Your task to perform on an android device: turn on translation in the chrome app Image 0: 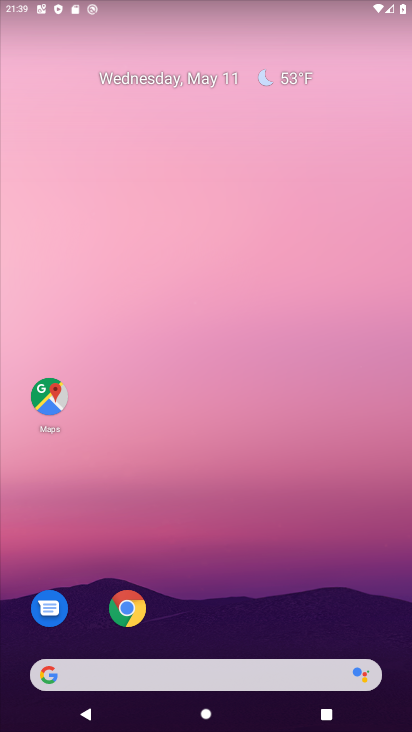
Step 0: click (135, 616)
Your task to perform on an android device: turn on translation in the chrome app Image 1: 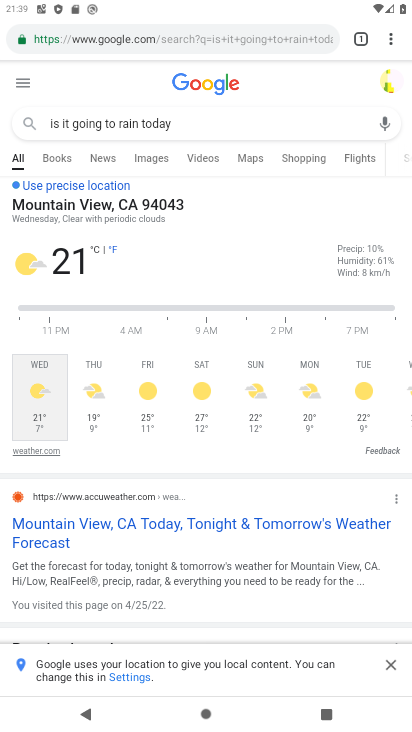
Step 1: drag from (388, 39) to (259, 437)
Your task to perform on an android device: turn on translation in the chrome app Image 2: 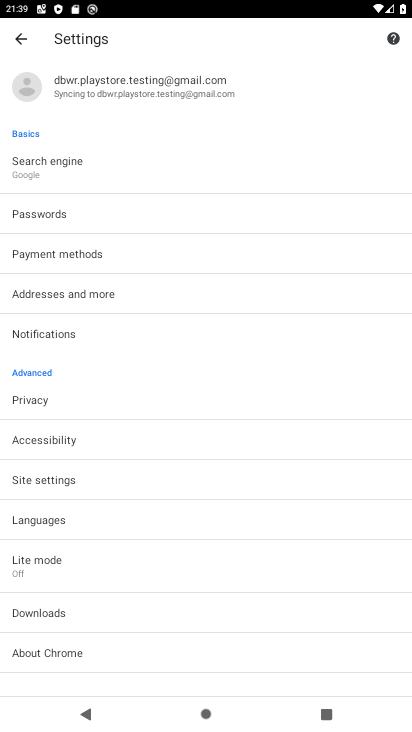
Step 2: click (49, 516)
Your task to perform on an android device: turn on translation in the chrome app Image 3: 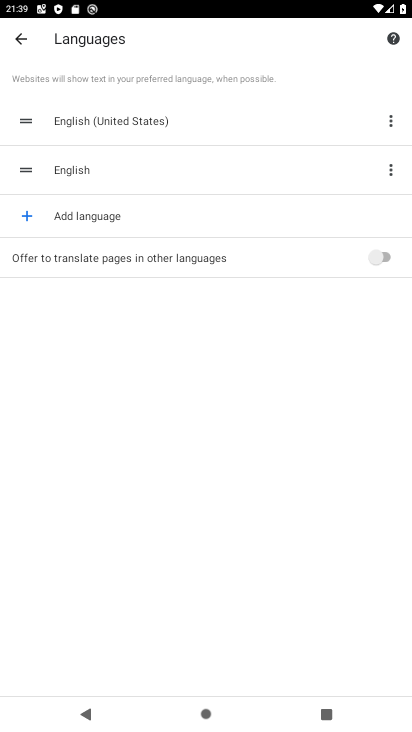
Step 3: click (375, 257)
Your task to perform on an android device: turn on translation in the chrome app Image 4: 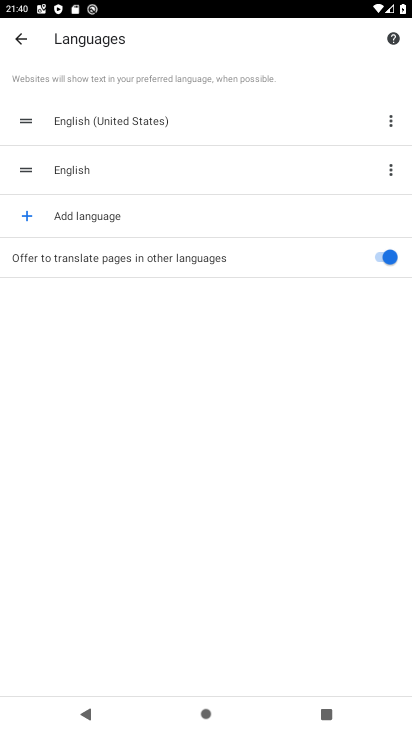
Step 4: task complete